Your task to perform on an android device: toggle improve location accuracy Image 0: 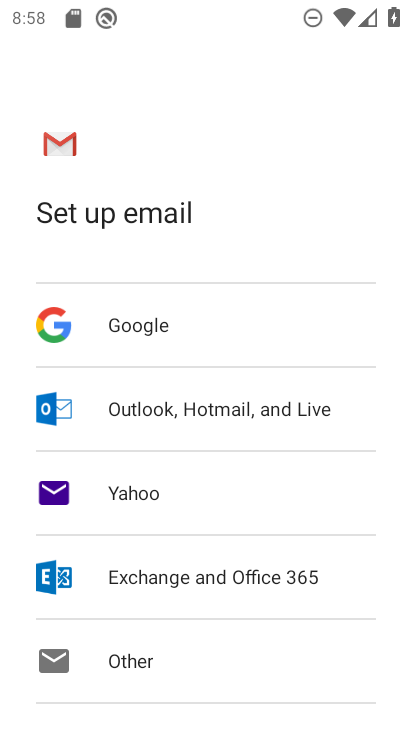
Step 0: press home button
Your task to perform on an android device: toggle improve location accuracy Image 1: 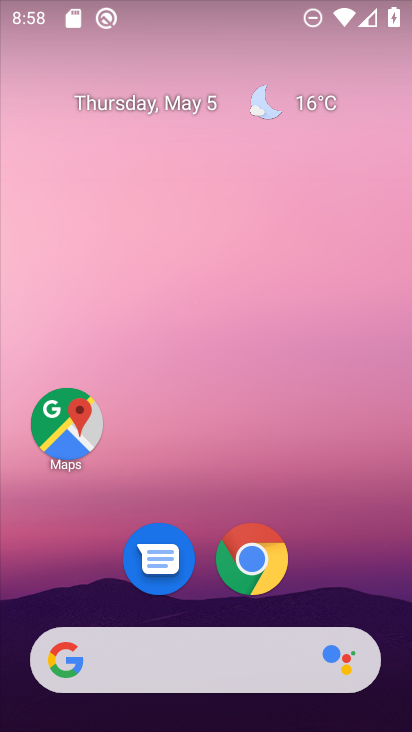
Step 1: drag from (358, 608) to (345, 22)
Your task to perform on an android device: toggle improve location accuracy Image 2: 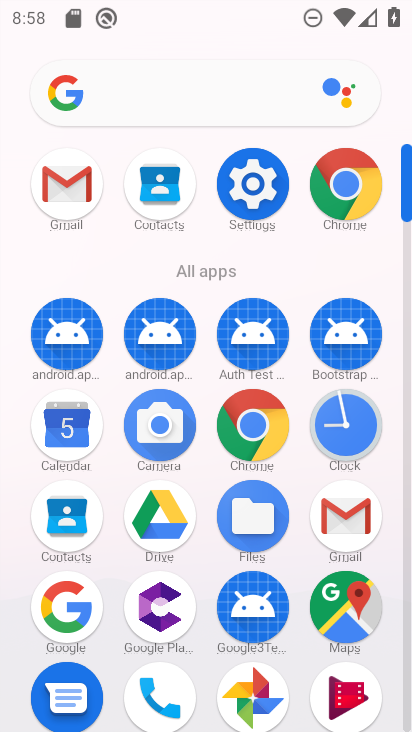
Step 2: click (247, 189)
Your task to perform on an android device: toggle improve location accuracy Image 3: 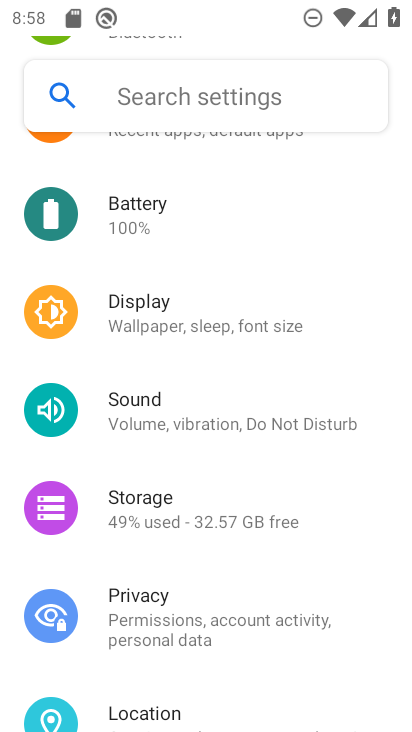
Step 3: drag from (361, 689) to (347, 484)
Your task to perform on an android device: toggle improve location accuracy Image 4: 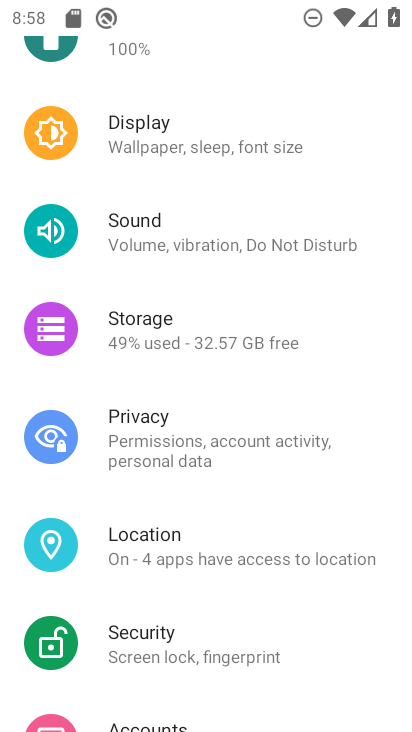
Step 4: click (124, 550)
Your task to perform on an android device: toggle improve location accuracy Image 5: 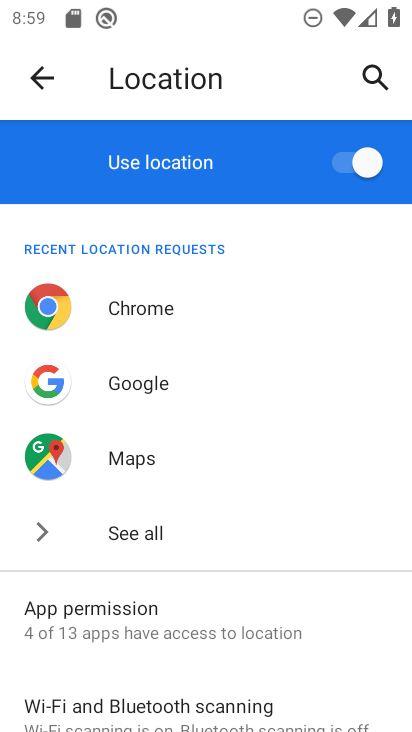
Step 5: drag from (382, 605) to (364, 329)
Your task to perform on an android device: toggle improve location accuracy Image 6: 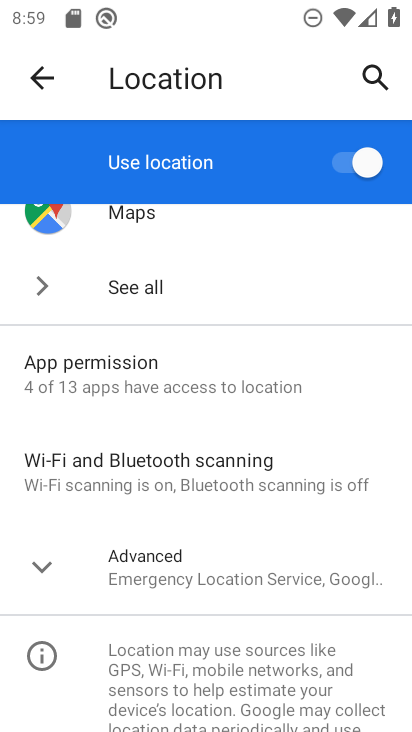
Step 6: click (34, 573)
Your task to perform on an android device: toggle improve location accuracy Image 7: 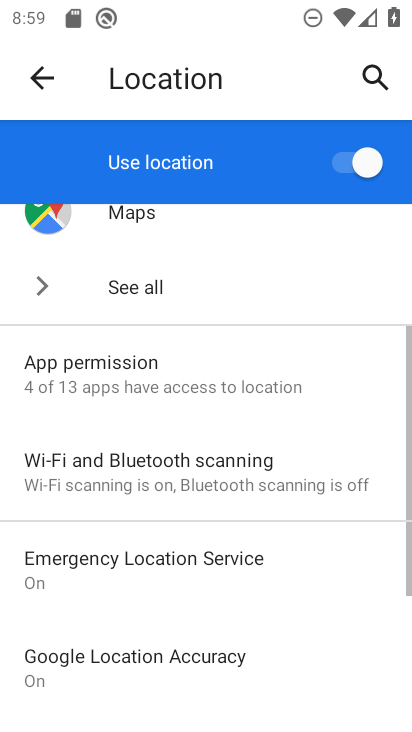
Step 7: drag from (260, 576) to (255, 291)
Your task to perform on an android device: toggle improve location accuracy Image 8: 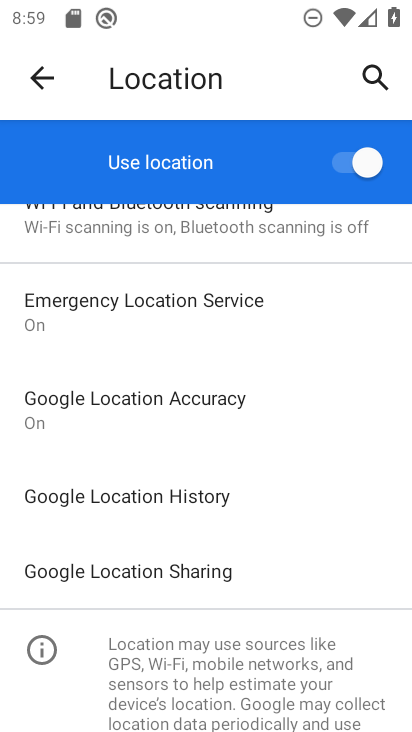
Step 8: click (140, 399)
Your task to perform on an android device: toggle improve location accuracy Image 9: 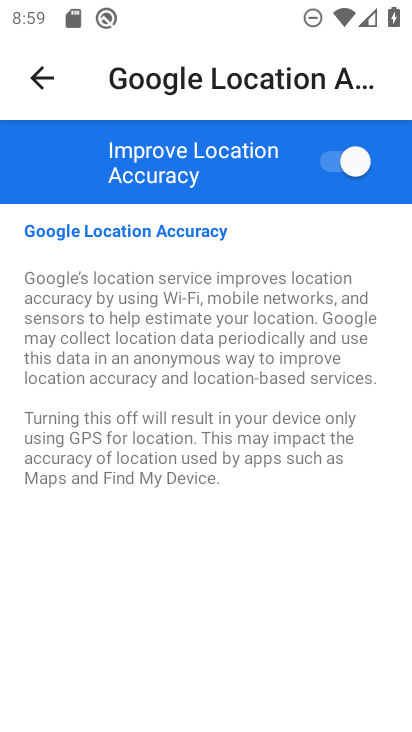
Step 9: click (349, 173)
Your task to perform on an android device: toggle improve location accuracy Image 10: 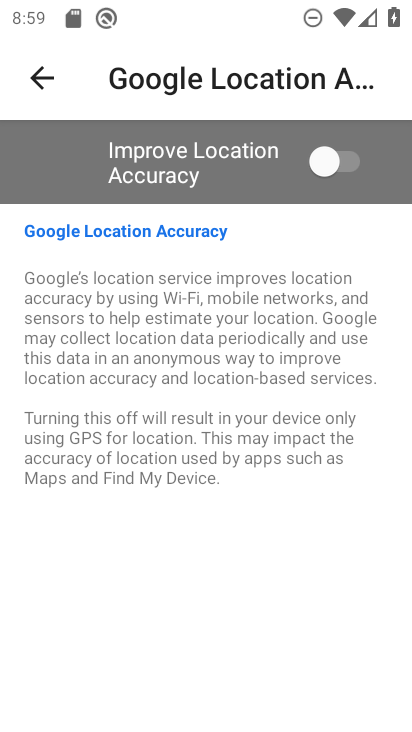
Step 10: task complete